Your task to perform on an android device: Show me popular videos on Youtube Image 0: 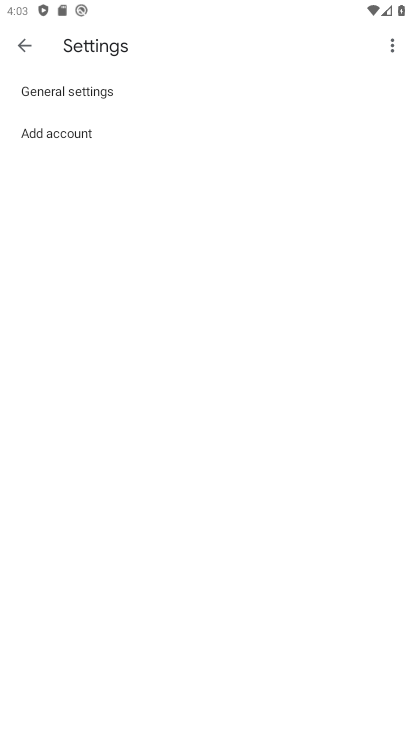
Step 0: press home button
Your task to perform on an android device: Show me popular videos on Youtube Image 1: 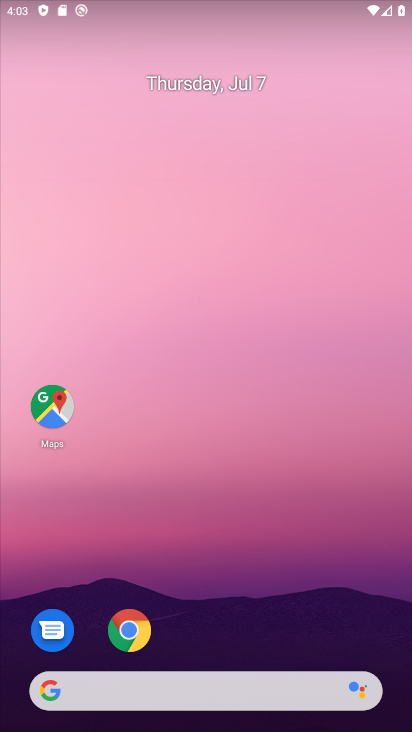
Step 1: drag from (227, 656) to (341, 78)
Your task to perform on an android device: Show me popular videos on Youtube Image 2: 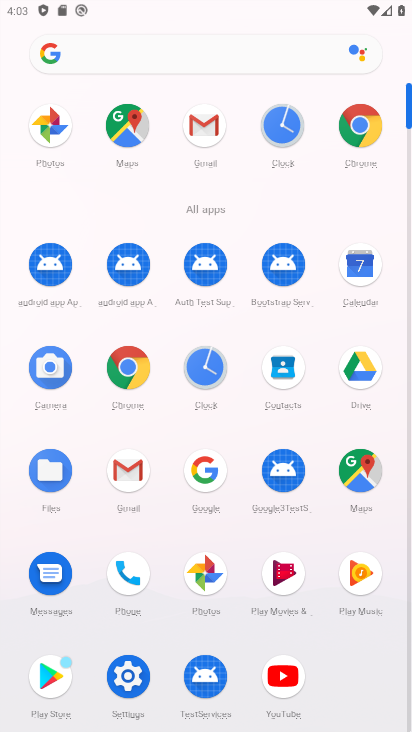
Step 2: click (283, 677)
Your task to perform on an android device: Show me popular videos on Youtube Image 3: 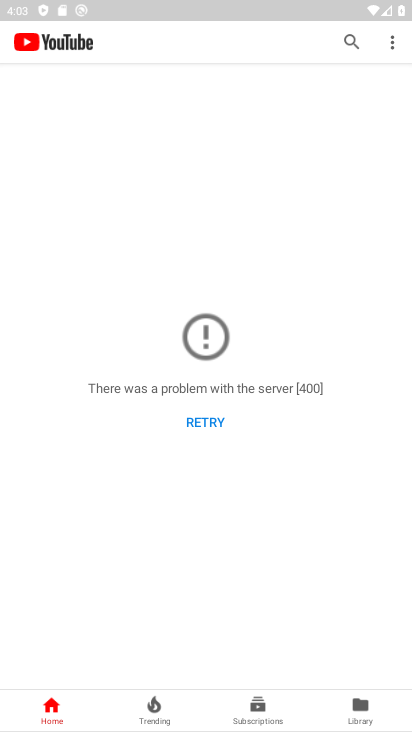
Step 3: drag from (360, 697) to (399, 671)
Your task to perform on an android device: Show me popular videos on Youtube Image 4: 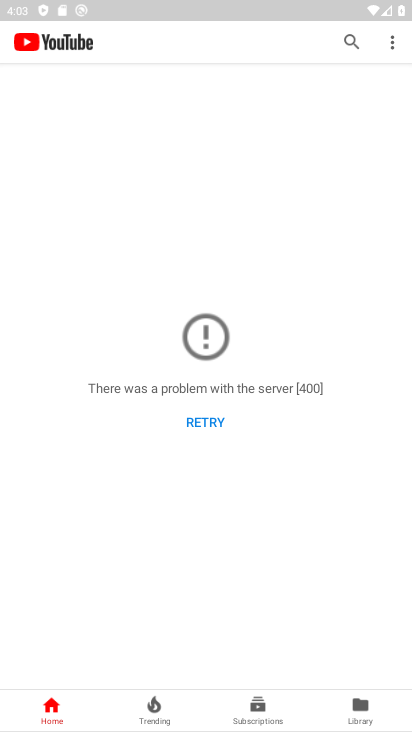
Step 4: click (356, 701)
Your task to perform on an android device: Show me popular videos on Youtube Image 5: 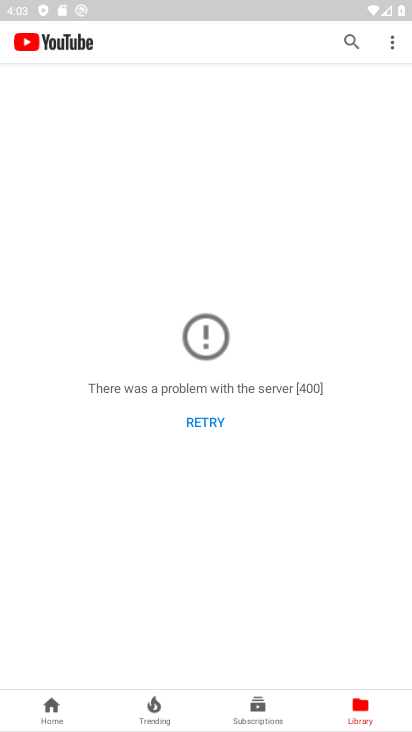
Step 5: task complete